Your task to perform on an android device: Search for pizza restaurants on Maps Image 0: 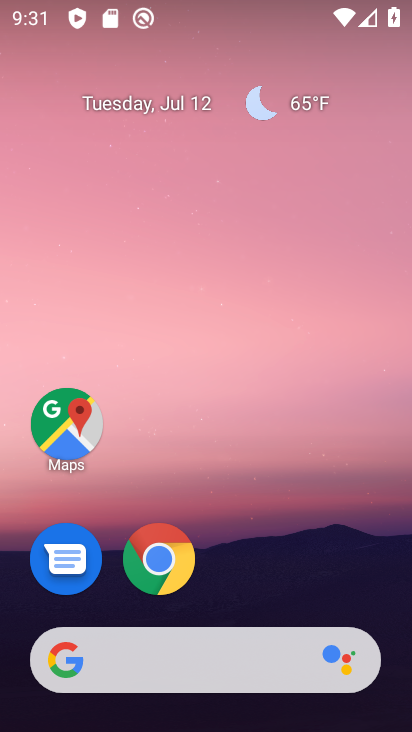
Step 0: drag from (369, 598) to (371, 136)
Your task to perform on an android device: Search for pizza restaurants on Maps Image 1: 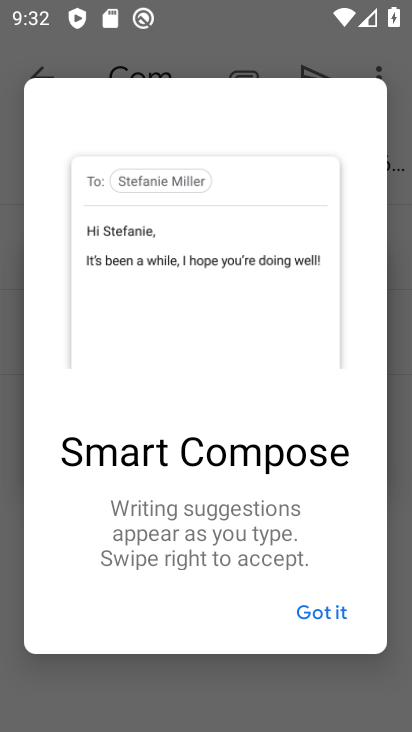
Step 1: press back button
Your task to perform on an android device: Search for pizza restaurants on Maps Image 2: 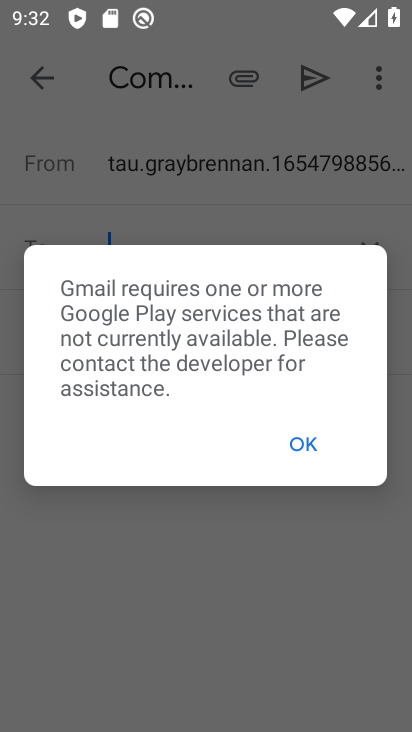
Step 2: press home button
Your task to perform on an android device: Search for pizza restaurants on Maps Image 3: 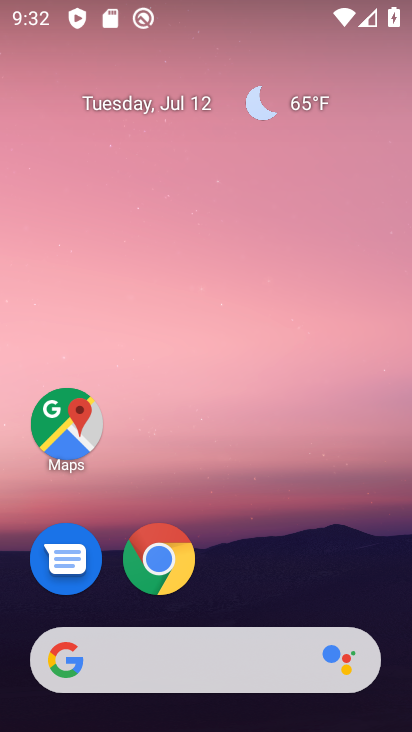
Step 3: drag from (389, 583) to (379, 90)
Your task to perform on an android device: Search for pizza restaurants on Maps Image 4: 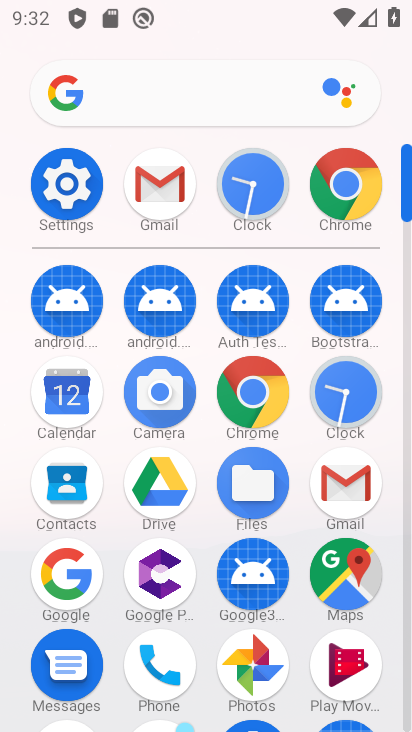
Step 4: click (357, 569)
Your task to perform on an android device: Search for pizza restaurants on Maps Image 5: 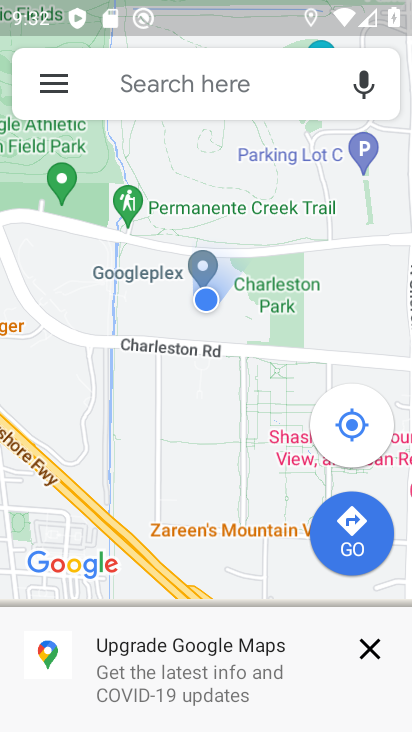
Step 5: click (232, 96)
Your task to perform on an android device: Search for pizza restaurants on Maps Image 6: 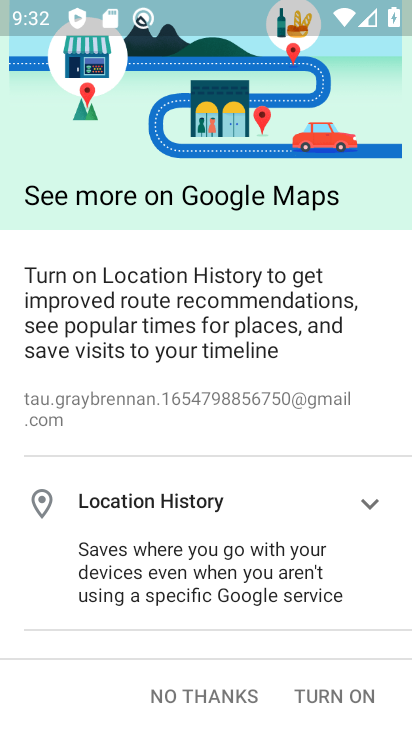
Step 6: click (216, 685)
Your task to perform on an android device: Search for pizza restaurants on Maps Image 7: 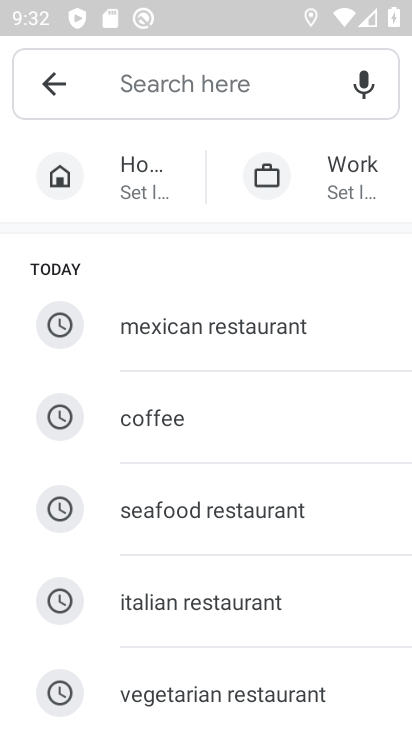
Step 7: click (181, 99)
Your task to perform on an android device: Search for pizza restaurants on Maps Image 8: 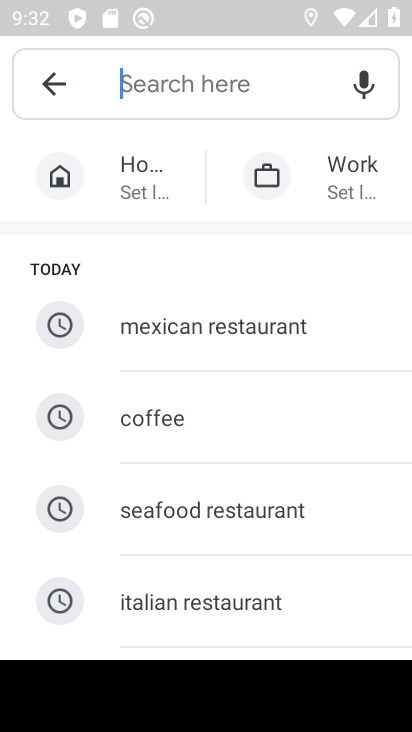
Step 8: type "pizza restaurants"
Your task to perform on an android device: Search for pizza restaurants on Maps Image 9: 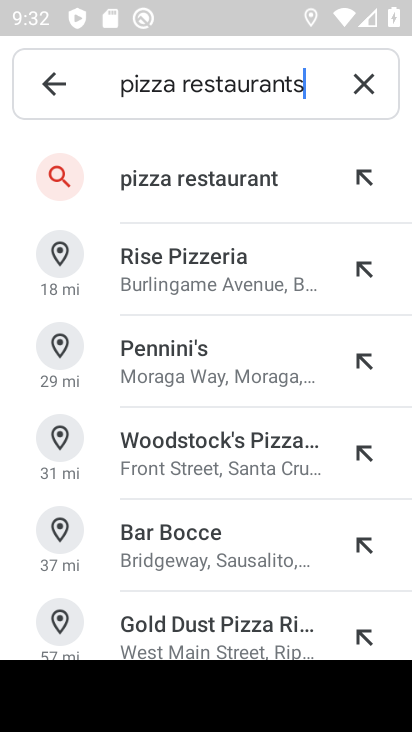
Step 9: click (269, 197)
Your task to perform on an android device: Search for pizza restaurants on Maps Image 10: 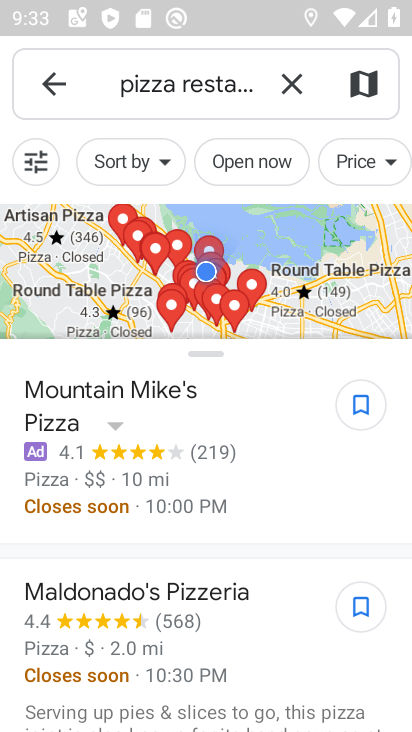
Step 10: task complete